Your task to perform on an android device: clear all cookies in the chrome app Image 0: 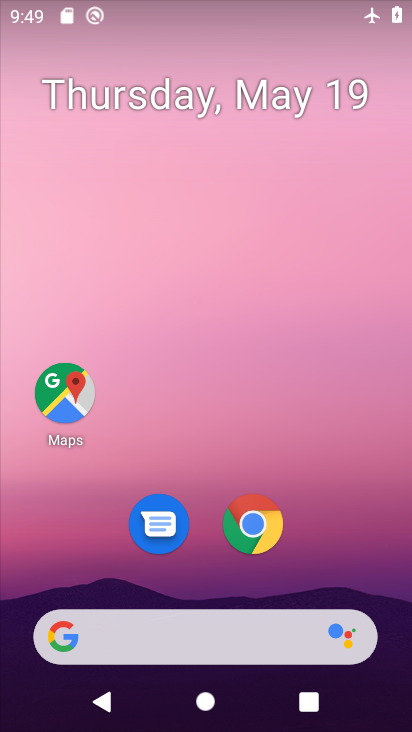
Step 0: click (272, 522)
Your task to perform on an android device: clear all cookies in the chrome app Image 1: 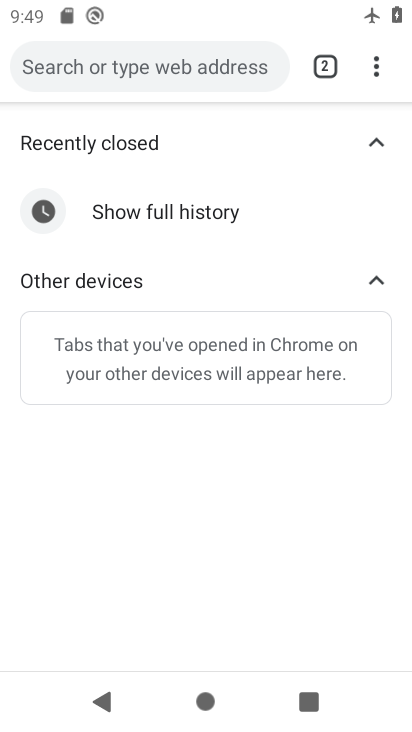
Step 1: click (375, 71)
Your task to perform on an android device: clear all cookies in the chrome app Image 2: 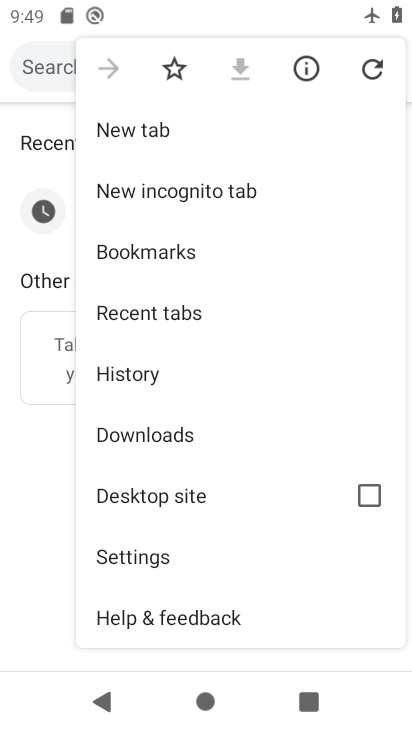
Step 2: click (195, 549)
Your task to perform on an android device: clear all cookies in the chrome app Image 3: 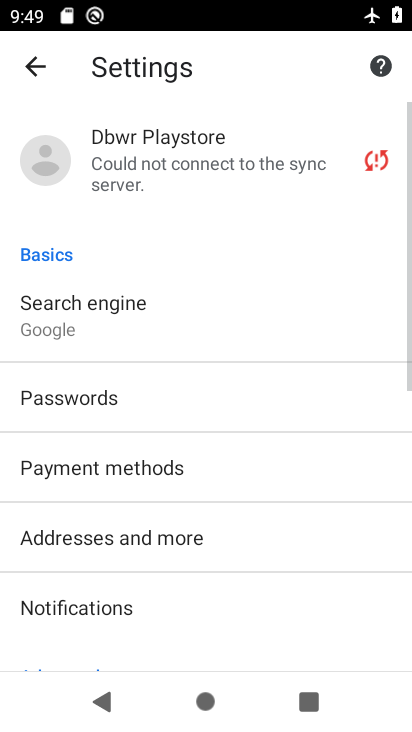
Step 3: drag from (267, 432) to (312, 131)
Your task to perform on an android device: clear all cookies in the chrome app Image 4: 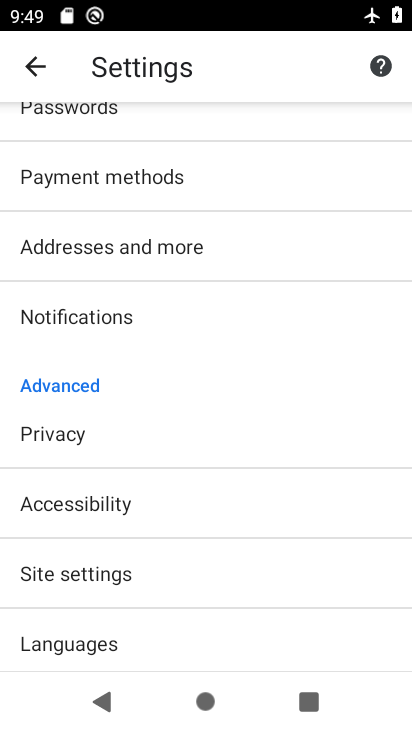
Step 4: click (174, 574)
Your task to perform on an android device: clear all cookies in the chrome app Image 5: 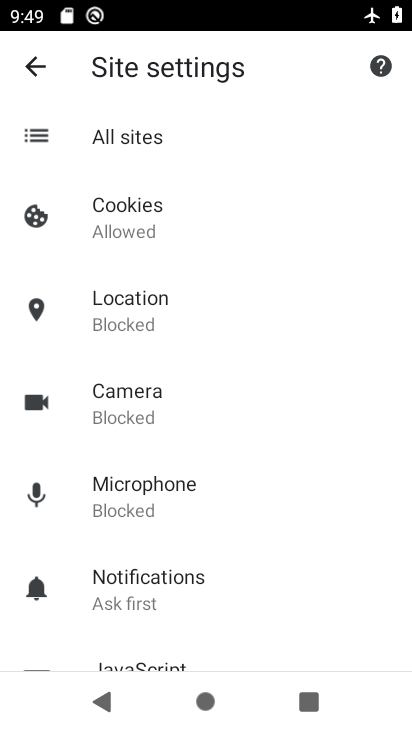
Step 5: click (41, 64)
Your task to perform on an android device: clear all cookies in the chrome app Image 6: 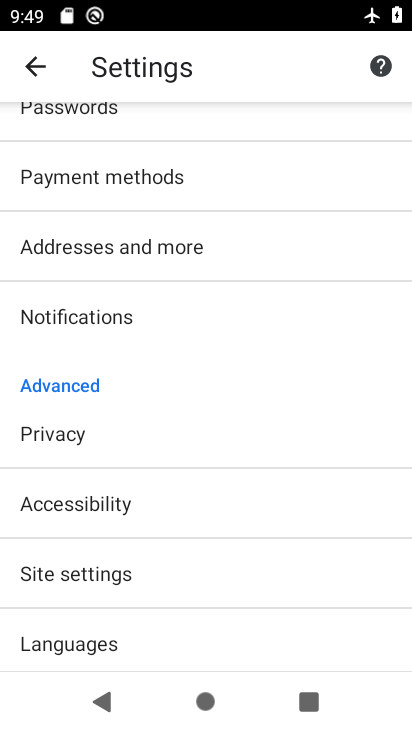
Step 6: click (113, 435)
Your task to perform on an android device: clear all cookies in the chrome app Image 7: 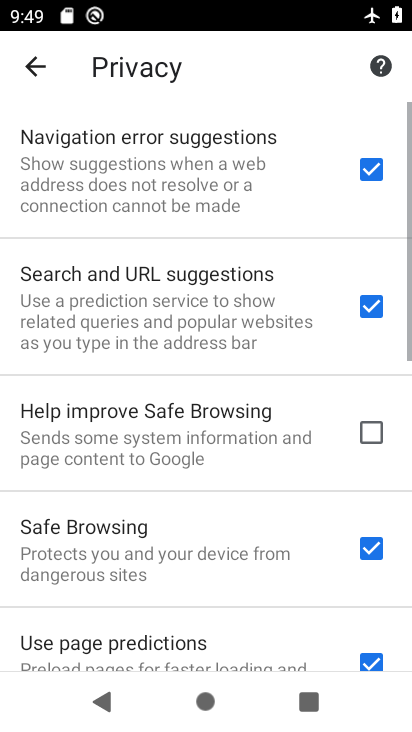
Step 7: drag from (261, 551) to (311, 65)
Your task to perform on an android device: clear all cookies in the chrome app Image 8: 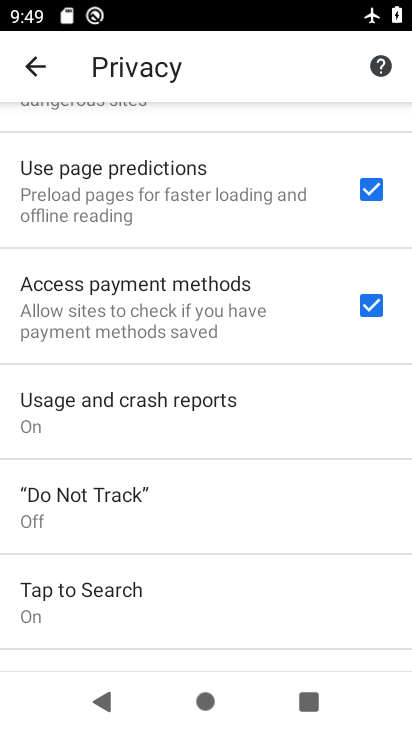
Step 8: drag from (268, 489) to (279, 209)
Your task to perform on an android device: clear all cookies in the chrome app Image 9: 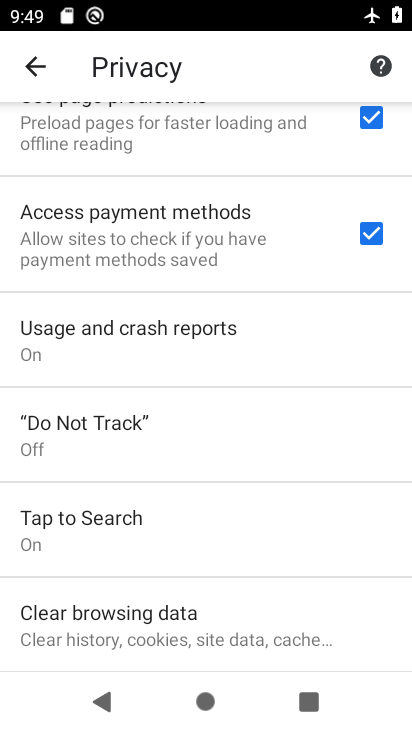
Step 9: click (200, 621)
Your task to perform on an android device: clear all cookies in the chrome app Image 10: 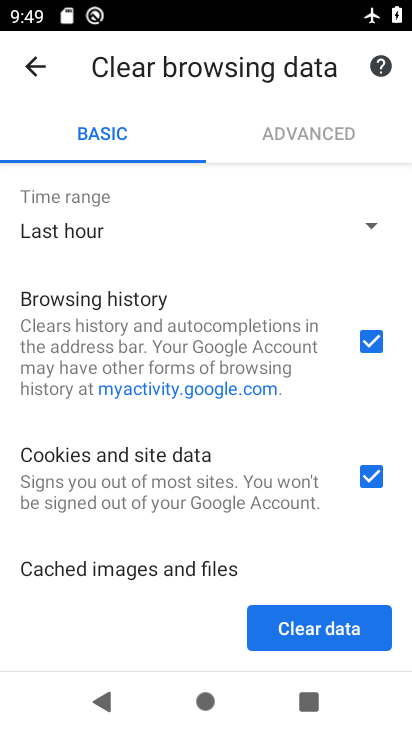
Step 10: click (373, 337)
Your task to perform on an android device: clear all cookies in the chrome app Image 11: 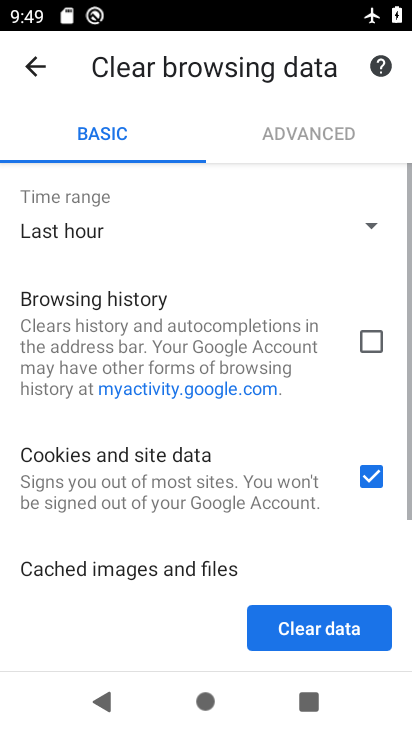
Step 11: drag from (291, 436) to (298, 286)
Your task to perform on an android device: clear all cookies in the chrome app Image 12: 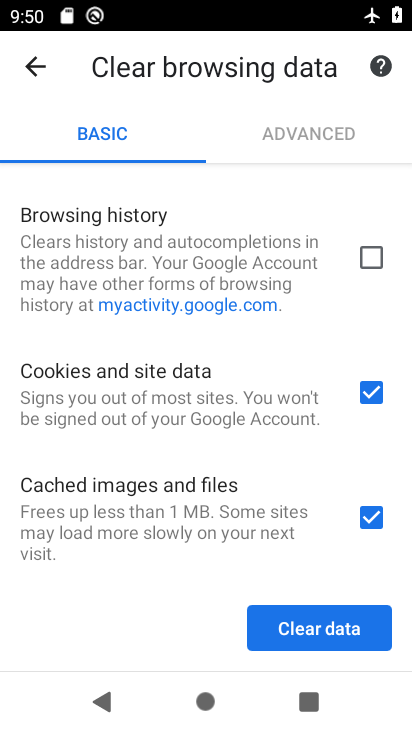
Step 12: click (367, 517)
Your task to perform on an android device: clear all cookies in the chrome app Image 13: 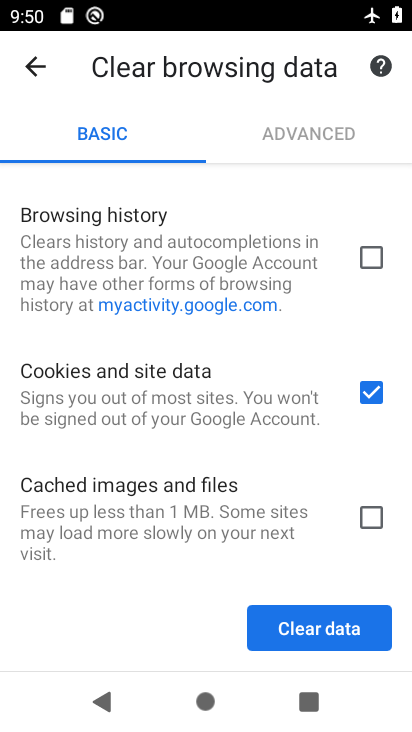
Step 13: click (338, 621)
Your task to perform on an android device: clear all cookies in the chrome app Image 14: 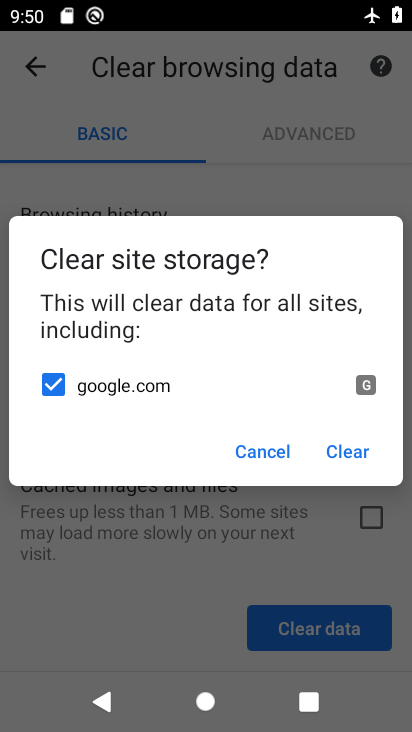
Step 14: click (356, 453)
Your task to perform on an android device: clear all cookies in the chrome app Image 15: 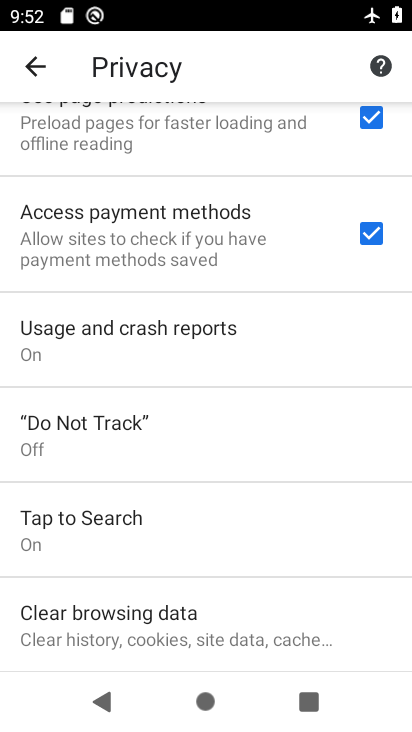
Step 15: click (210, 622)
Your task to perform on an android device: clear all cookies in the chrome app Image 16: 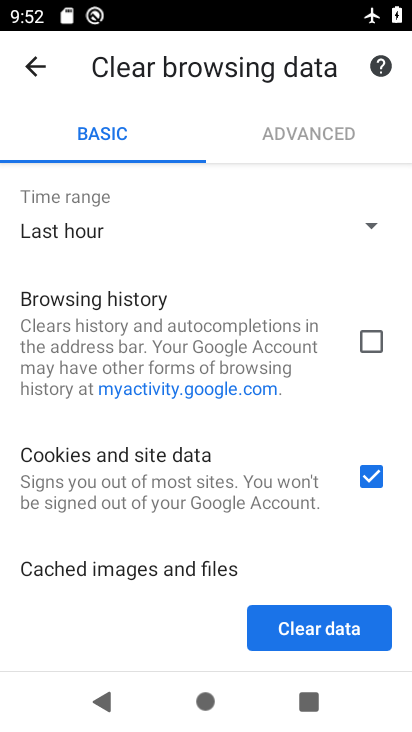
Step 16: click (354, 628)
Your task to perform on an android device: clear all cookies in the chrome app Image 17: 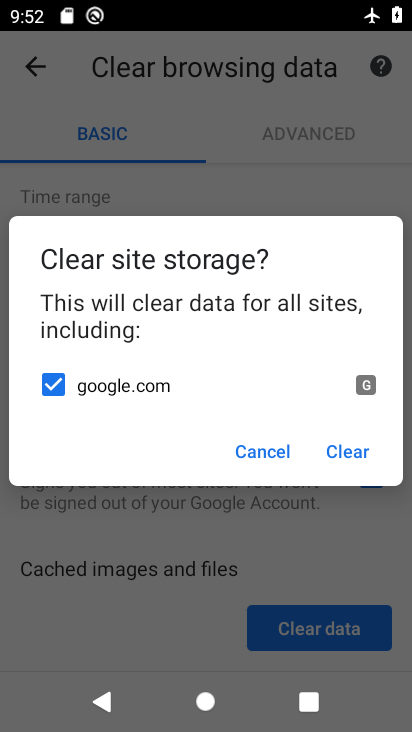
Step 17: click (349, 444)
Your task to perform on an android device: clear all cookies in the chrome app Image 18: 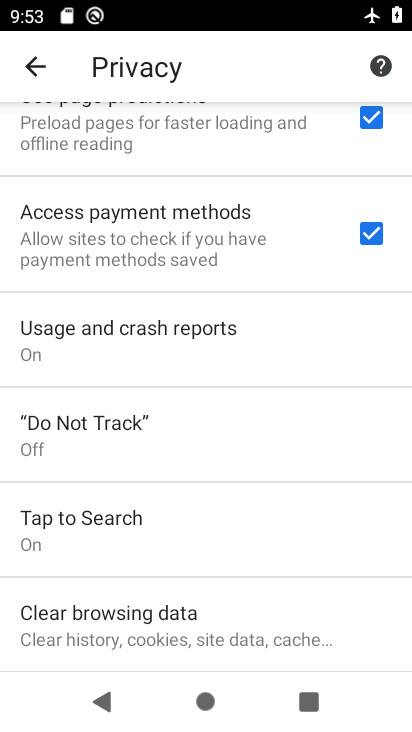
Step 18: task complete